Your task to perform on an android device: uninstall "Chime – Mobile Banking" Image 0: 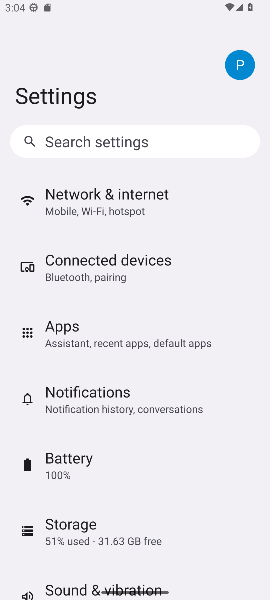
Step 0: press home button
Your task to perform on an android device: uninstall "Chime – Mobile Banking" Image 1: 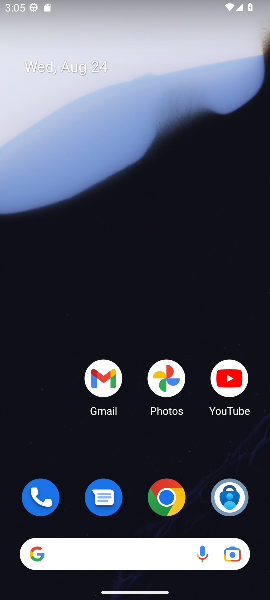
Step 1: drag from (164, 549) to (178, 89)
Your task to perform on an android device: uninstall "Chime – Mobile Banking" Image 2: 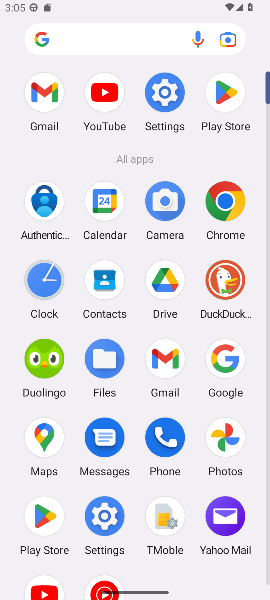
Step 2: click (223, 93)
Your task to perform on an android device: uninstall "Chime – Mobile Banking" Image 3: 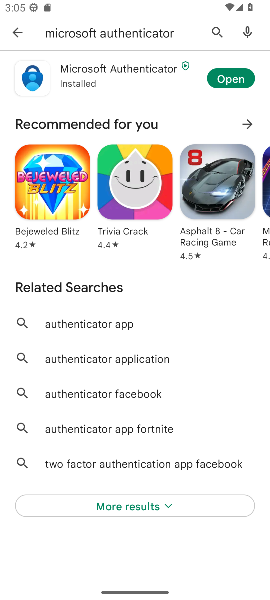
Step 3: press back button
Your task to perform on an android device: uninstall "Chime – Mobile Banking" Image 4: 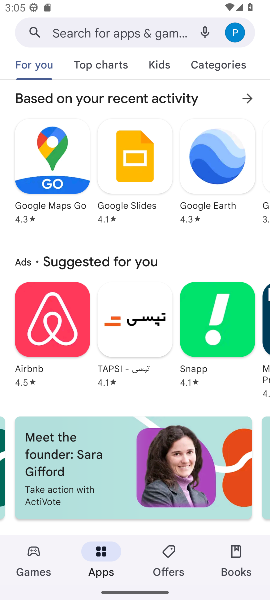
Step 4: click (145, 30)
Your task to perform on an android device: uninstall "Chime – Mobile Banking" Image 5: 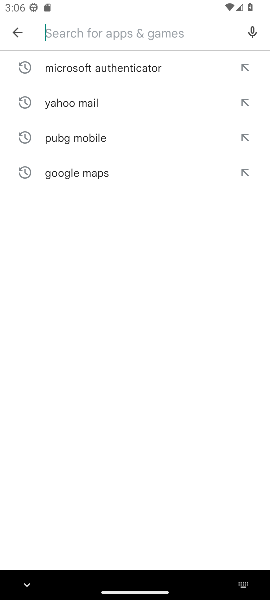
Step 5: type "Chime - Mobile Banking"
Your task to perform on an android device: uninstall "Chime – Mobile Banking" Image 6: 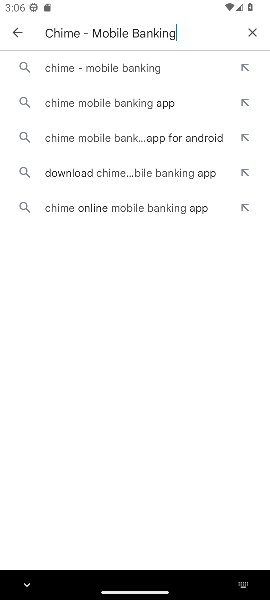
Step 6: click (159, 74)
Your task to perform on an android device: uninstall "Chime – Mobile Banking" Image 7: 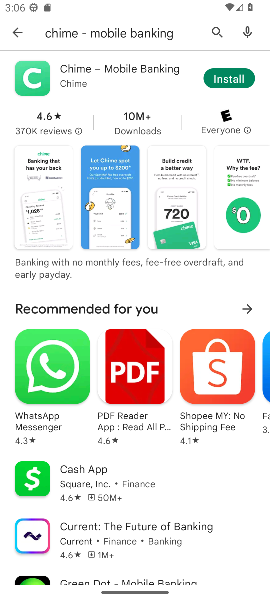
Step 7: task complete